Your task to perform on an android device: turn vacation reply on in the gmail app Image 0: 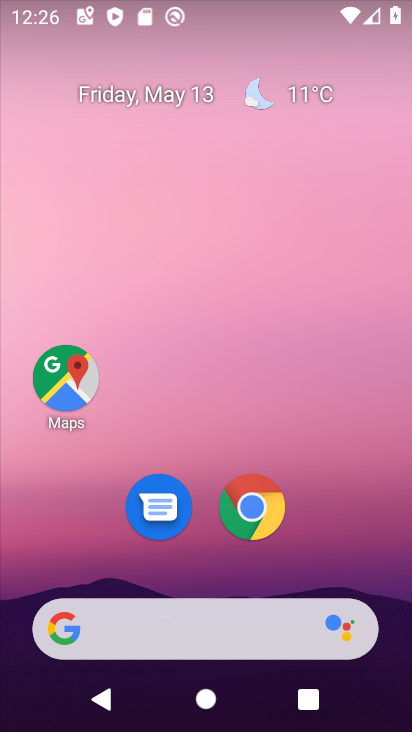
Step 0: drag from (207, 572) to (160, 0)
Your task to perform on an android device: turn vacation reply on in the gmail app Image 1: 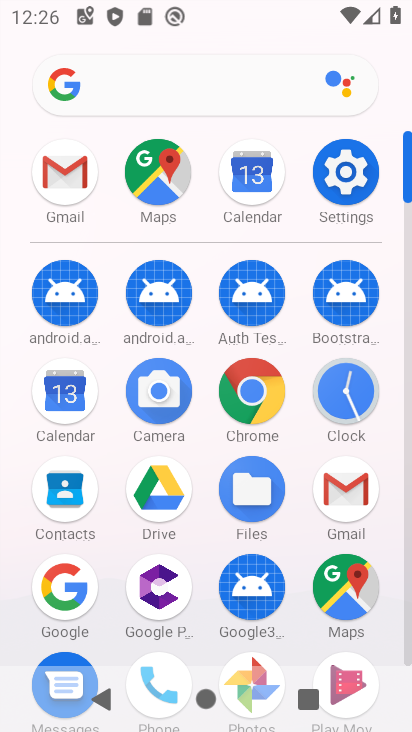
Step 1: click (352, 488)
Your task to perform on an android device: turn vacation reply on in the gmail app Image 2: 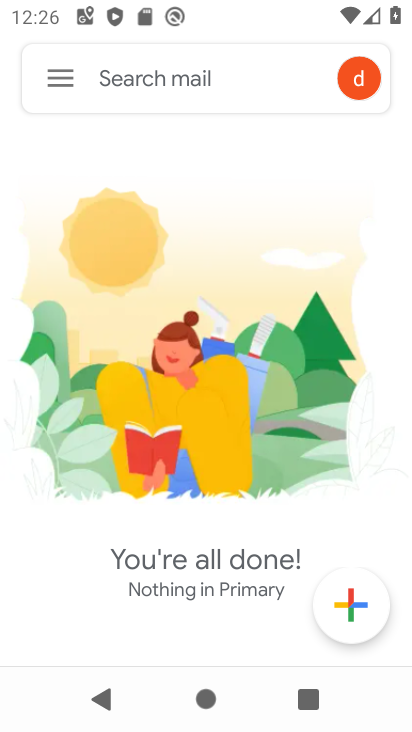
Step 2: click (35, 82)
Your task to perform on an android device: turn vacation reply on in the gmail app Image 3: 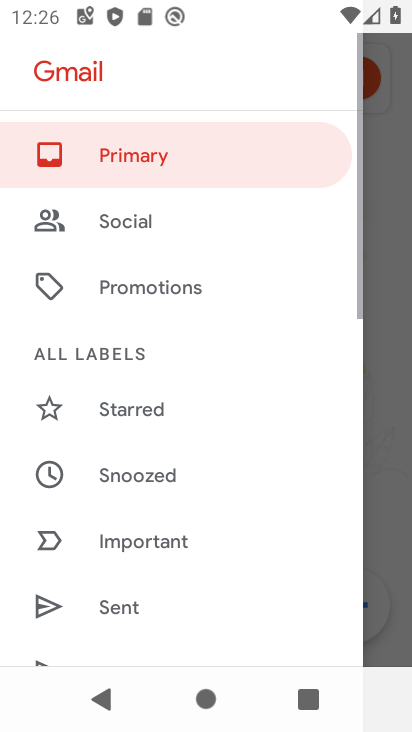
Step 3: drag from (159, 542) to (125, 8)
Your task to perform on an android device: turn vacation reply on in the gmail app Image 4: 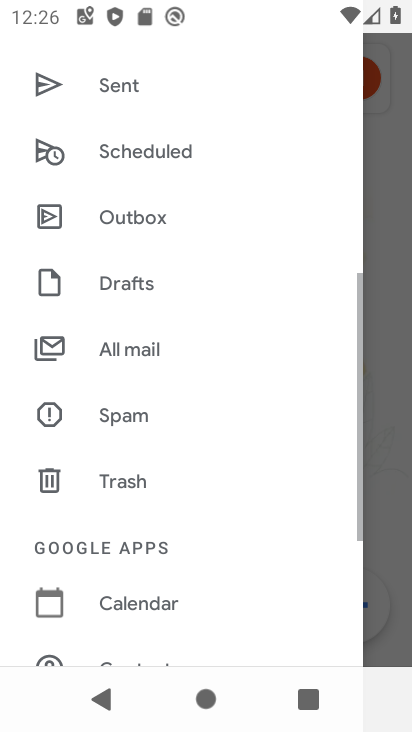
Step 4: drag from (212, 634) to (146, 141)
Your task to perform on an android device: turn vacation reply on in the gmail app Image 5: 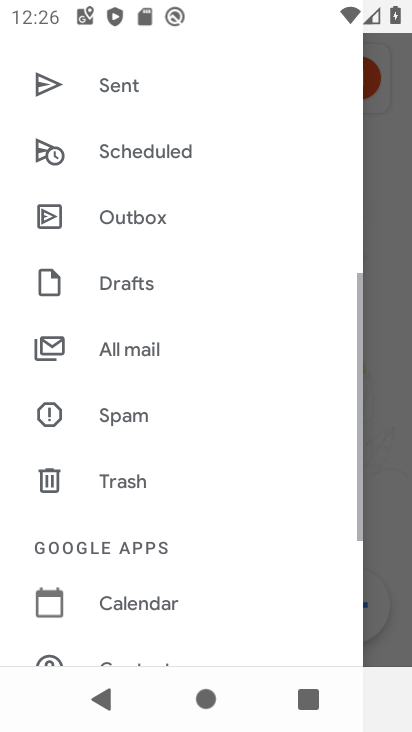
Step 5: drag from (144, 638) to (120, 82)
Your task to perform on an android device: turn vacation reply on in the gmail app Image 6: 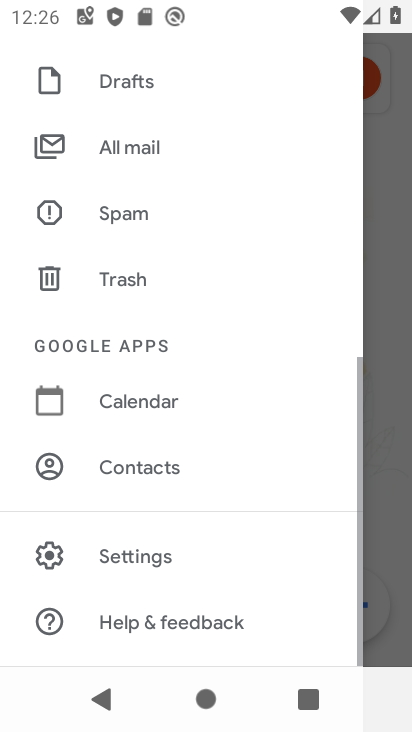
Step 6: click (136, 545)
Your task to perform on an android device: turn vacation reply on in the gmail app Image 7: 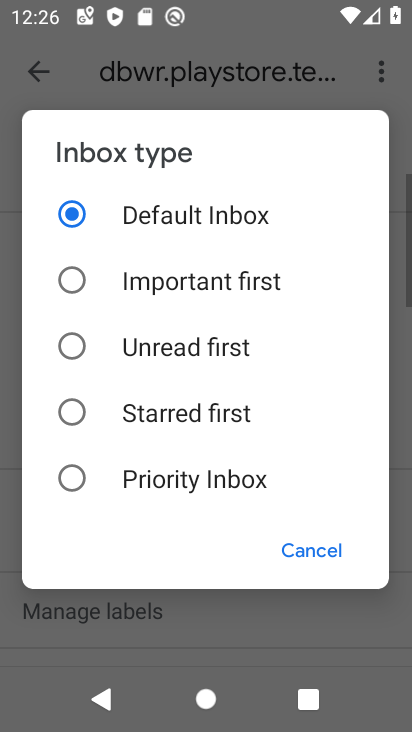
Step 7: click (312, 538)
Your task to perform on an android device: turn vacation reply on in the gmail app Image 8: 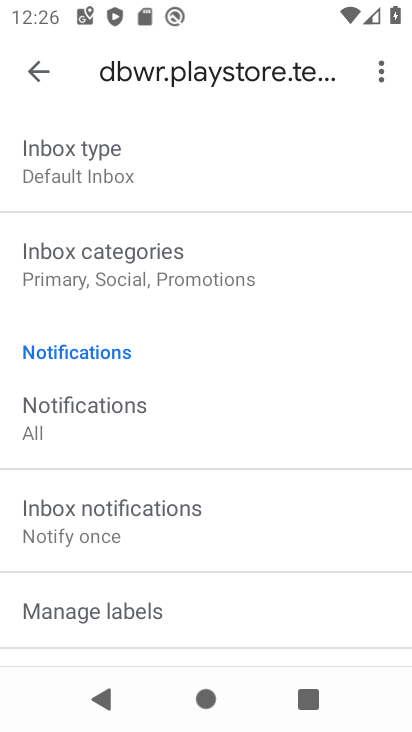
Step 8: drag from (298, 602) to (266, 0)
Your task to perform on an android device: turn vacation reply on in the gmail app Image 9: 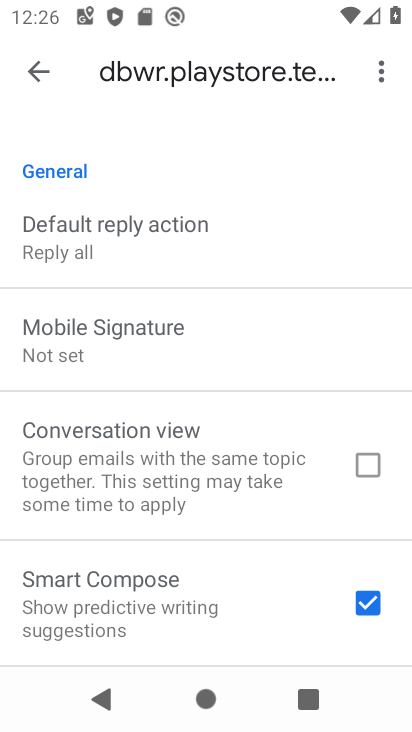
Step 9: drag from (206, 577) to (147, 30)
Your task to perform on an android device: turn vacation reply on in the gmail app Image 10: 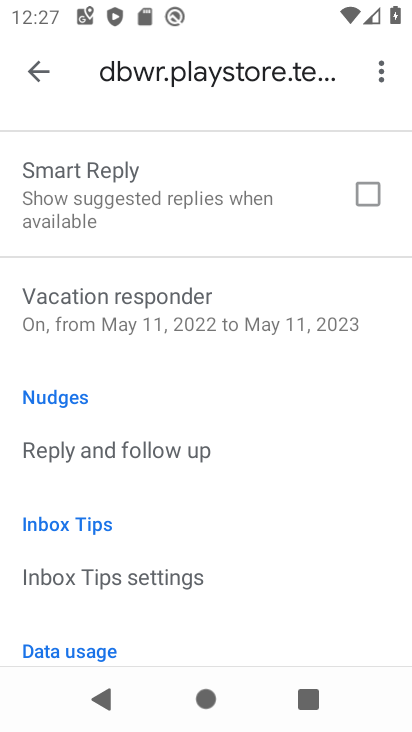
Step 10: click (204, 338)
Your task to perform on an android device: turn vacation reply on in the gmail app Image 11: 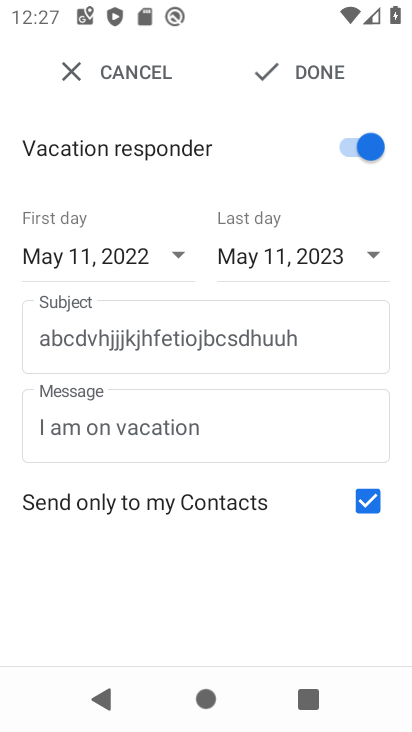
Step 11: task complete